Your task to perform on an android device: check google app version Image 0: 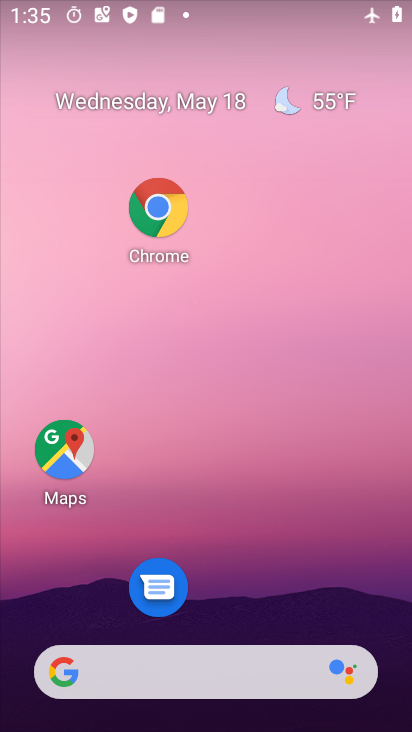
Step 0: click (71, 664)
Your task to perform on an android device: check google app version Image 1: 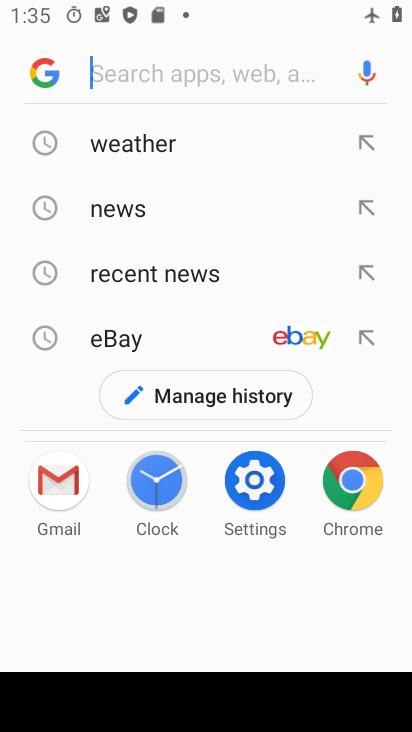
Step 1: click (49, 85)
Your task to perform on an android device: check google app version Image 2: 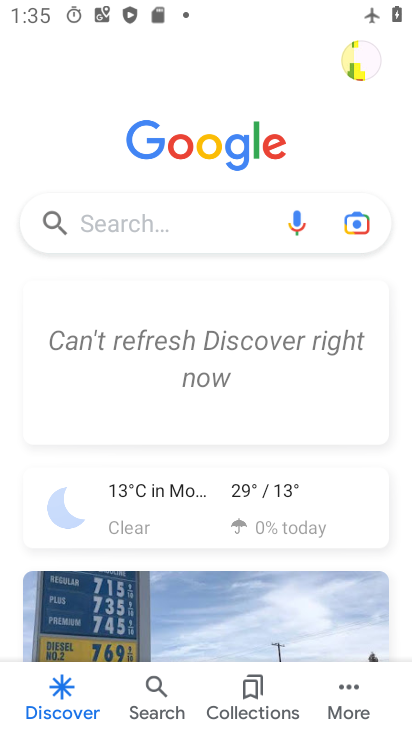
Step 2: click (345, 695)
Your task to perform on an android device: check google app version Image 3: 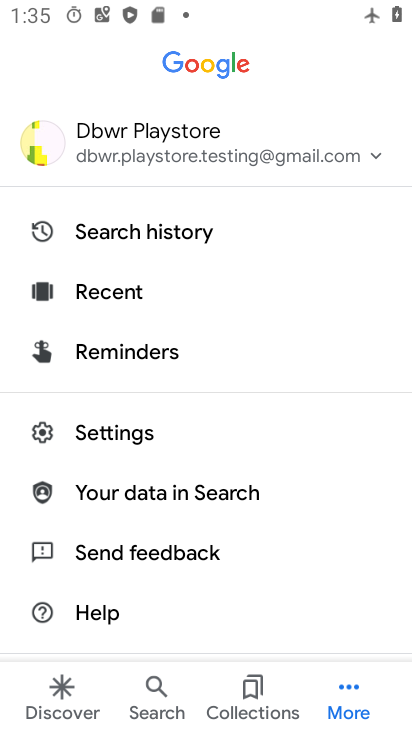
Step 3: click (142, 441)
Your task to perform on an android device: check google app version Image 4: 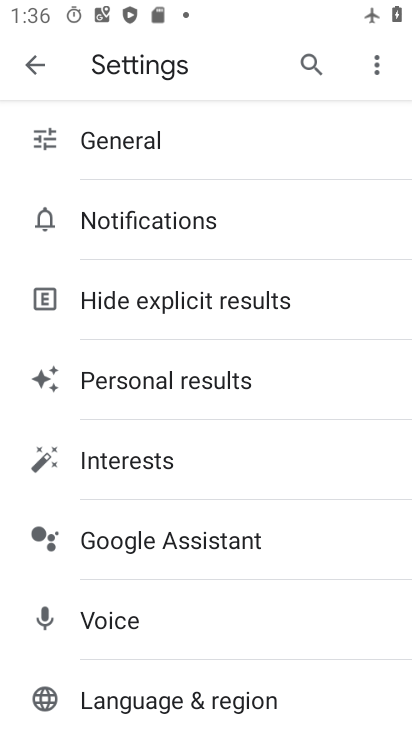
Step 4: drag from (145, 685) to (210, 443)
Your task to perform on an android device: check google app version Image 5: 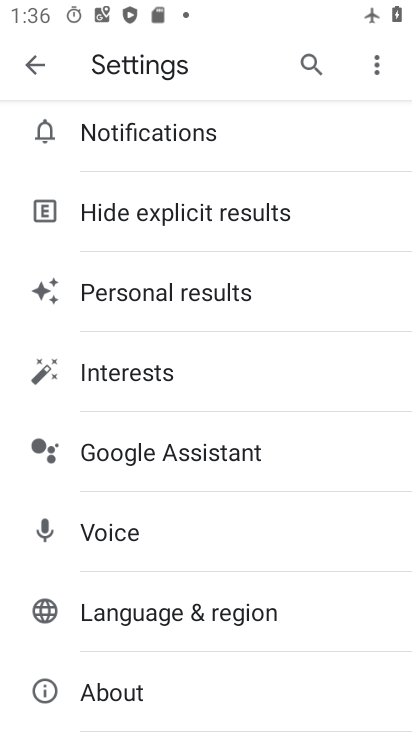
Step 5: click (107, 683)
Your task to perform on an android device: check google app version Image 6: 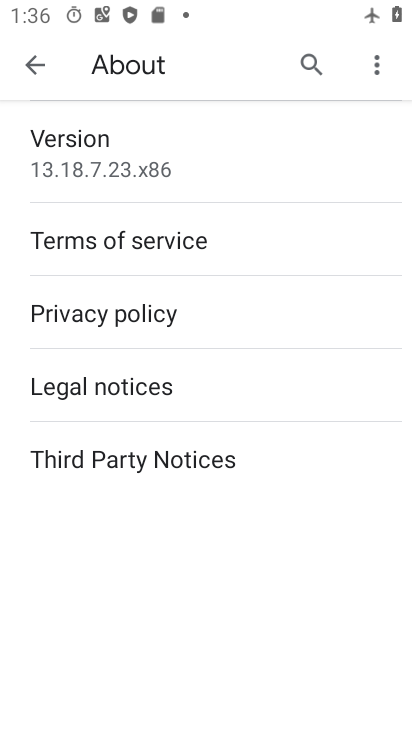
Step 6: task complete